Your task to perform on an android device: Do I have any events tomorrow? Image 0: 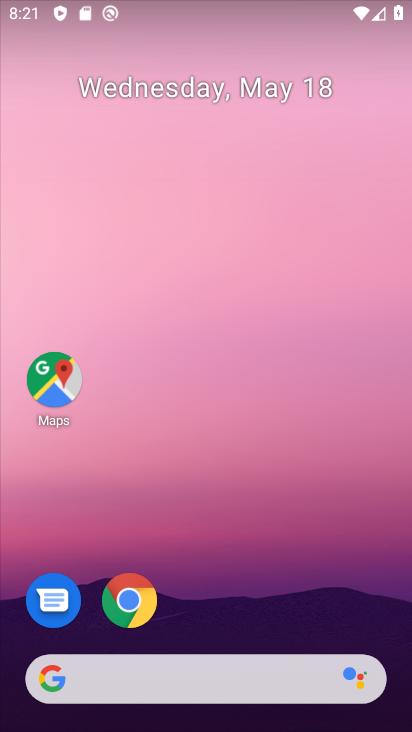
Step 0: drag from (47, 634) to (316, 282)
Your task to perform on an android device: Do I have any events tomorrow? Image 1: 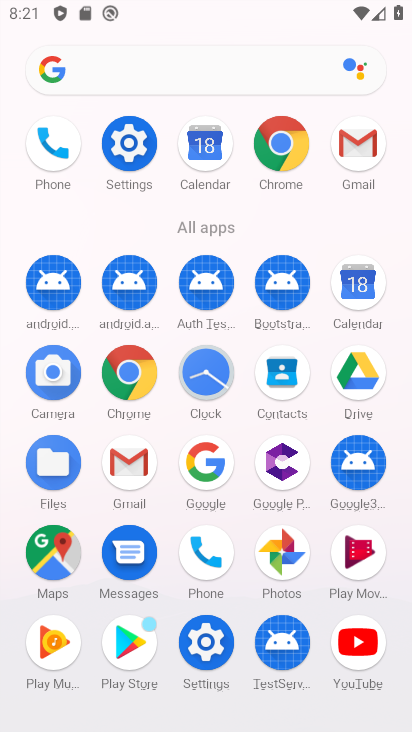
Step 1: click (364, 289)
Your task to perform on an android device: Do I have any events tomorrow? Image 2: 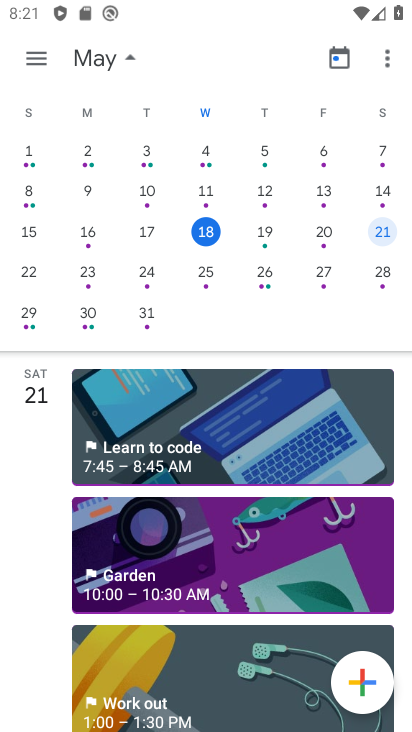
Step 2: click (267, 234)
Your task to perform on an android device: Do I have any events tomorrow? Image 3: 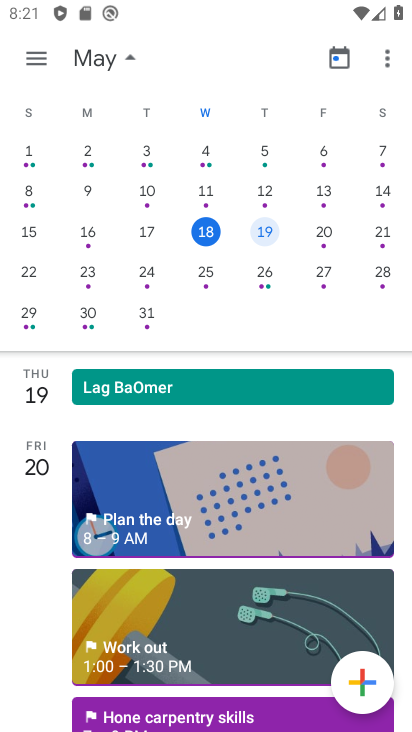
Step 3: task complete